Your task to perform on an android device: Search for "razer thresher" on target.com, select the first entry, and add it to the cart. Image 0: 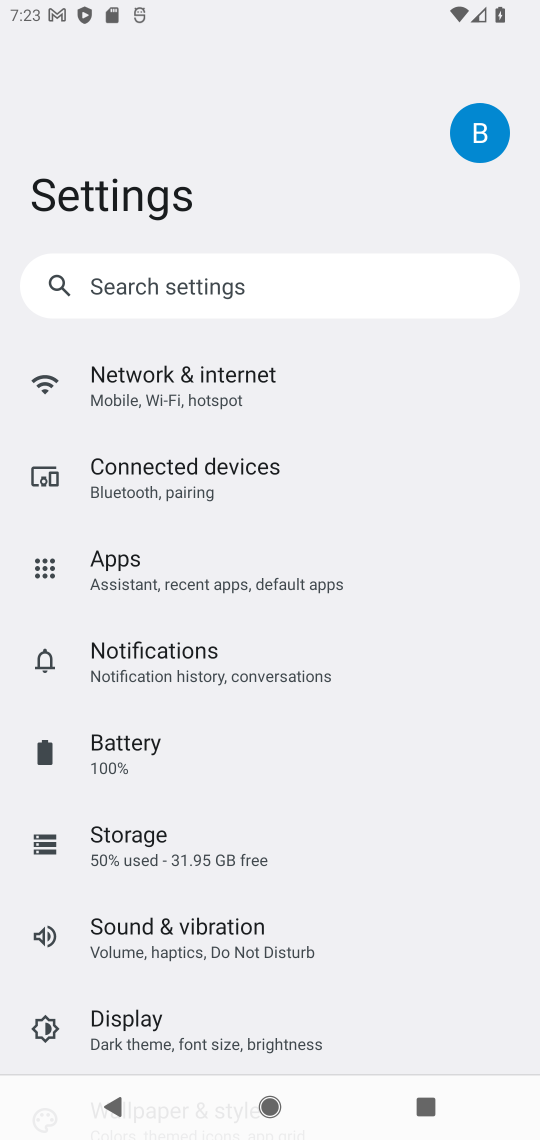
Step 0: press home button
Your task to perform on an android device: Search for "razer thresher" on target.com, select the first entry, and add it to the cart. Image 1: 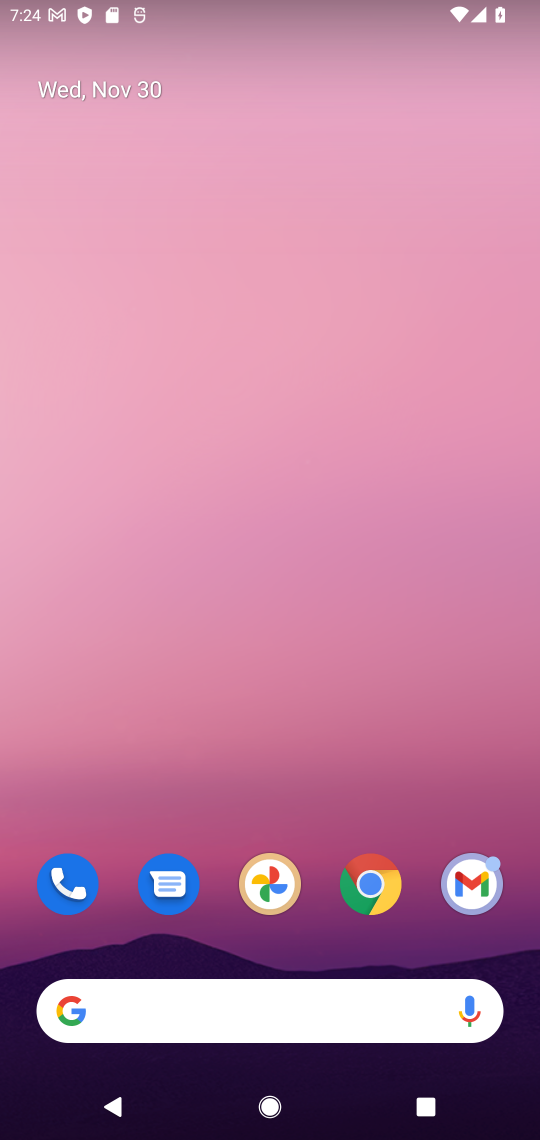
Step 1: click (378, 896)
Your task to perform on an android device: Search for "razer thresher" on target.com, select the first entry, and add it to the cart. Image 2: 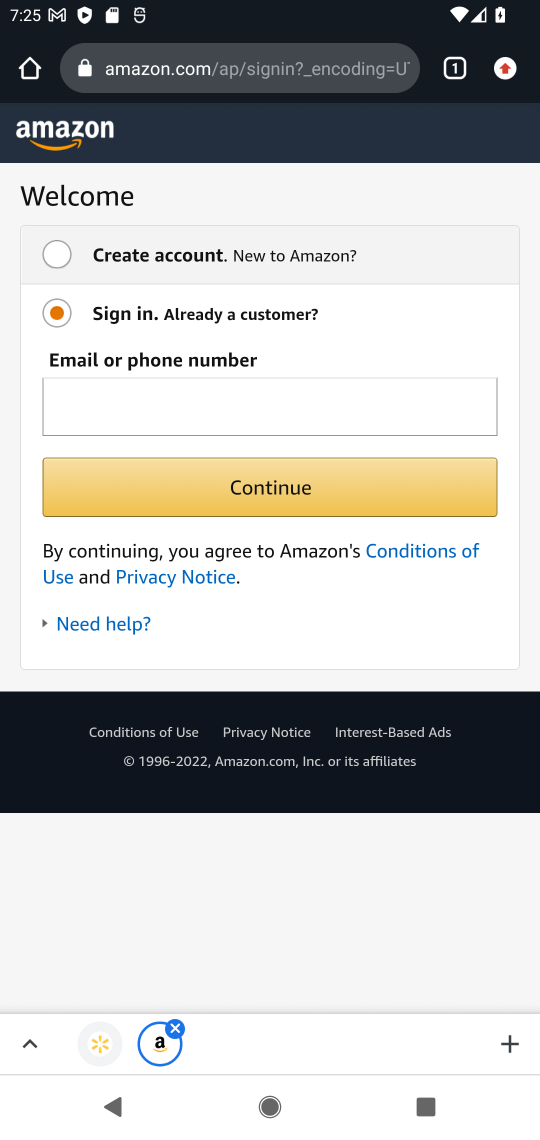
Step 2: click (319, 77)
Your task to perform on an android device: Search for "razer thresher" on target.com, select the first entry, and add it to the cart. Image 3: 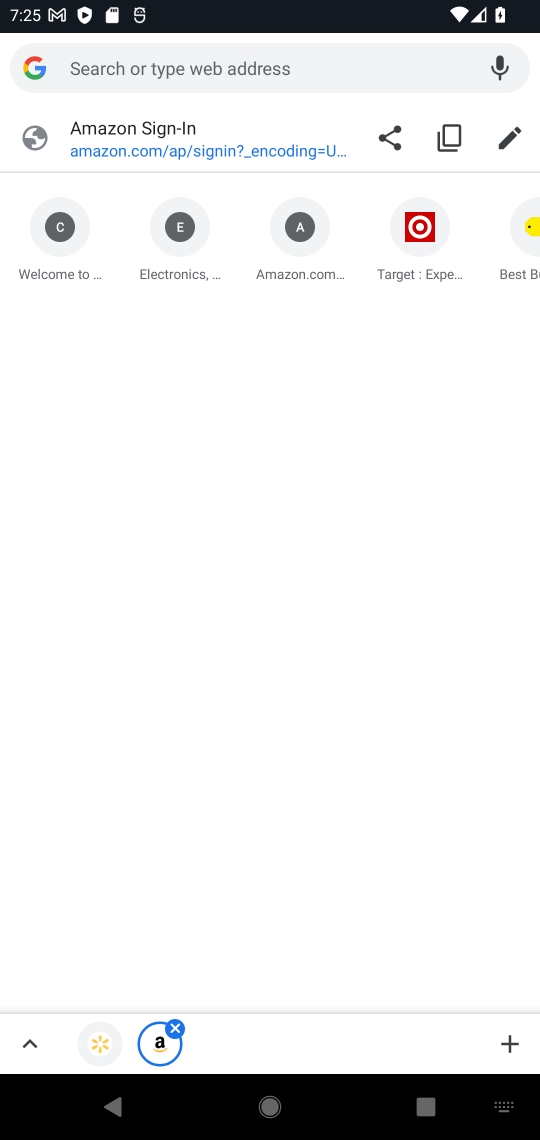
Step 3: click (415, 241)
Your task to perform on an android device: Search for "razer thresher" on target.com, select the first entry, and add it to the cart. Image 4: 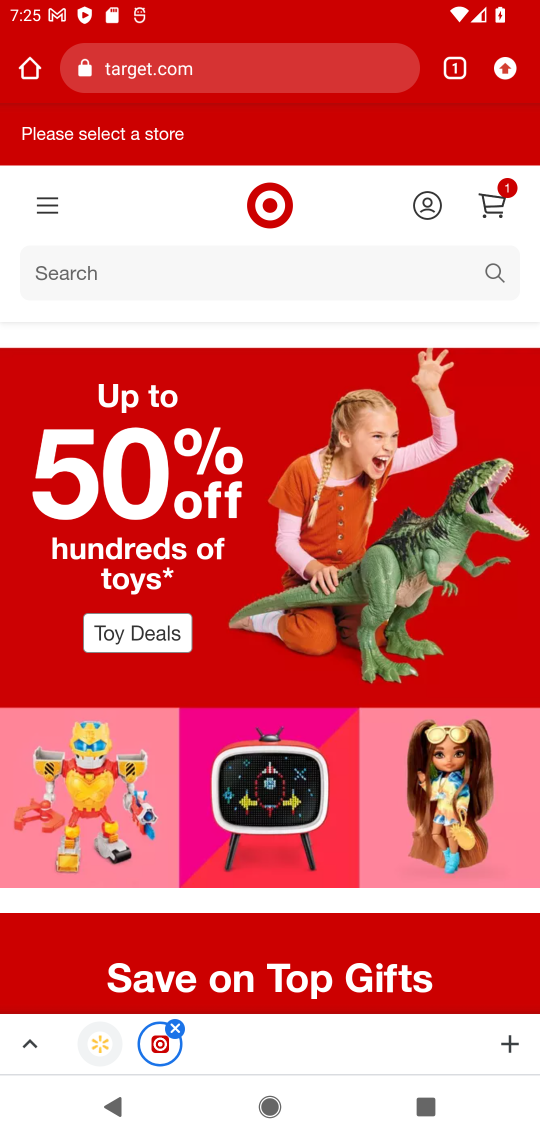
Step 4: click (48, 272)
Your task to perform on an android device: Search for "razer thresher" on target.com, select the first entry, and add it to the cart. Image 5: 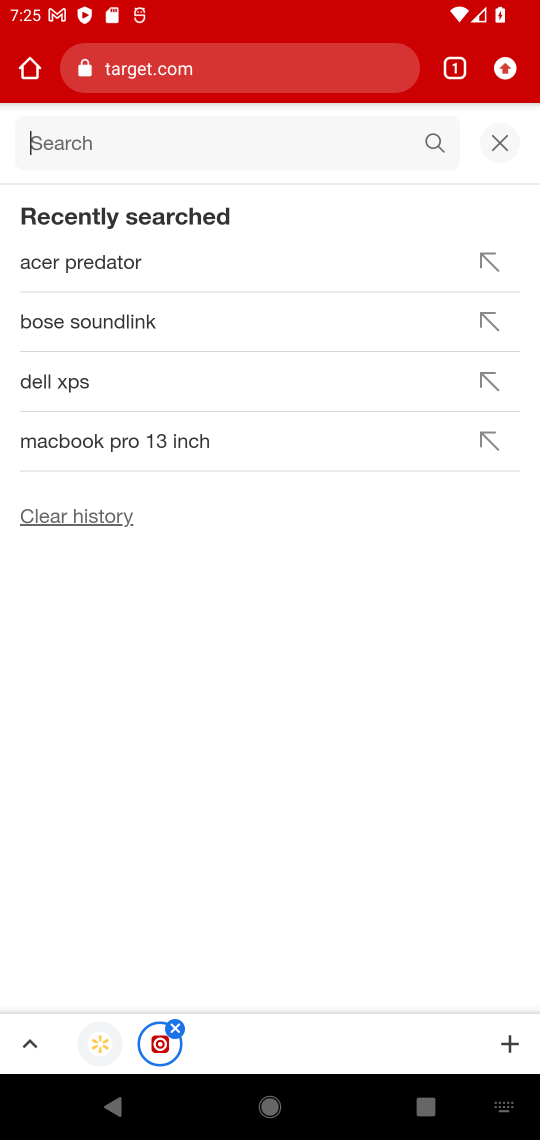
Step 5: type "razer thresher"
Your task to perform on an android device: Search for "razer thresher" on target.com, select the first entry, and add it to the cart. Image 6: 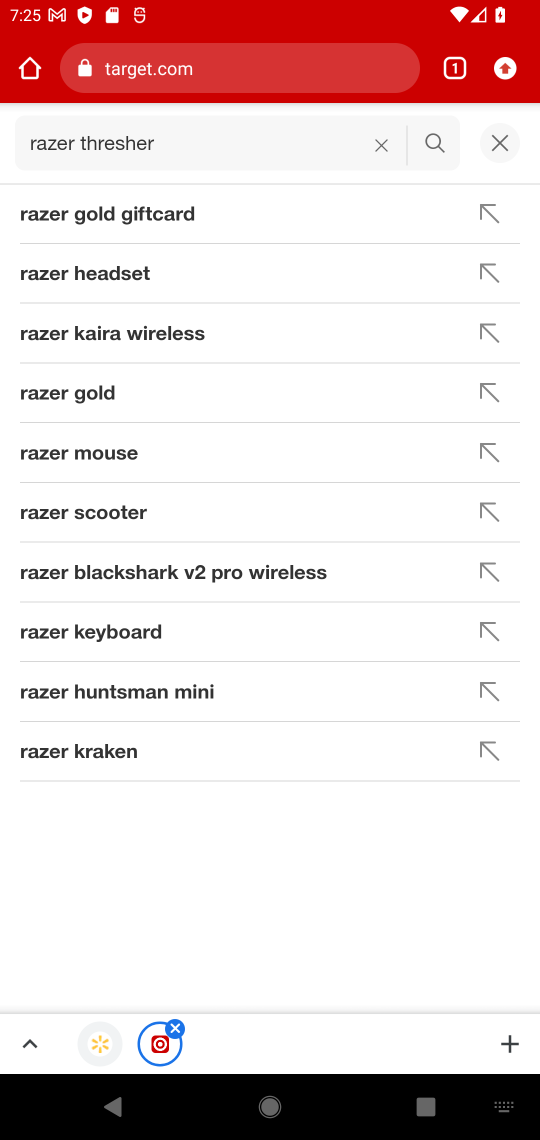
Step 6: click (435, 140)
Your task to perform on an android device: Search for "razer thresher" on target.com, select the first entry, and add it to the cart. Image 7: 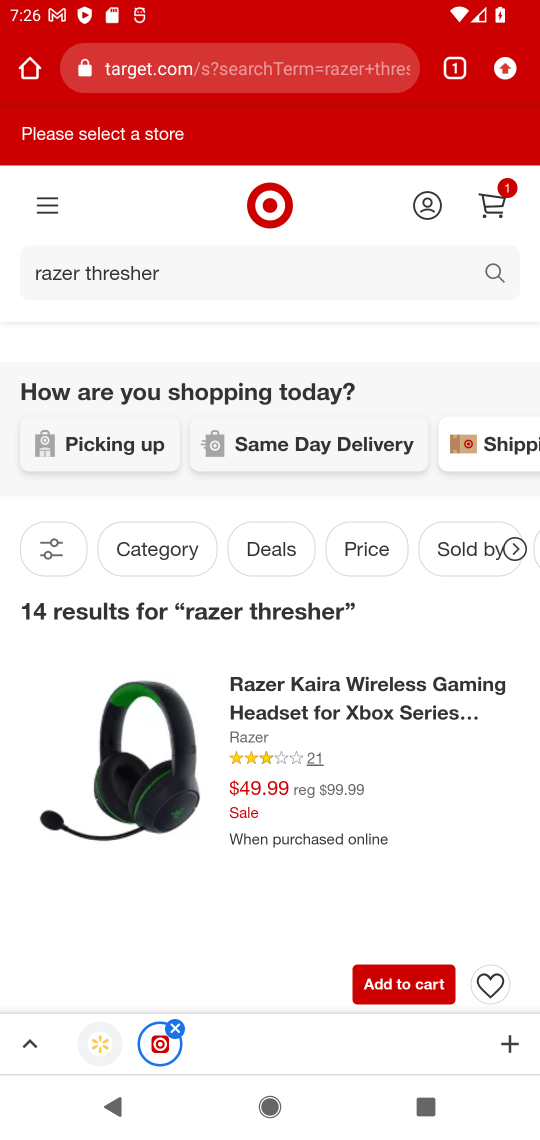
Step 7: task complete